Your task to perform on an android device: Show me popular games on the Play Store Image 0: 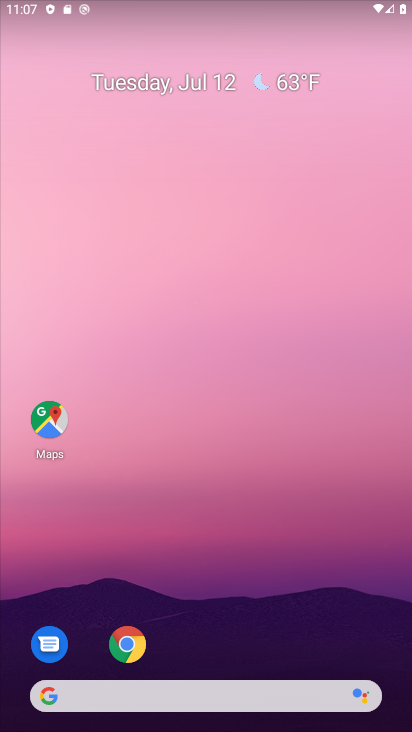
Step 0: drag from (154, 699) to (280, 209)
Your task to perform on an android device: Show me popular games on the Play Store Image 1: 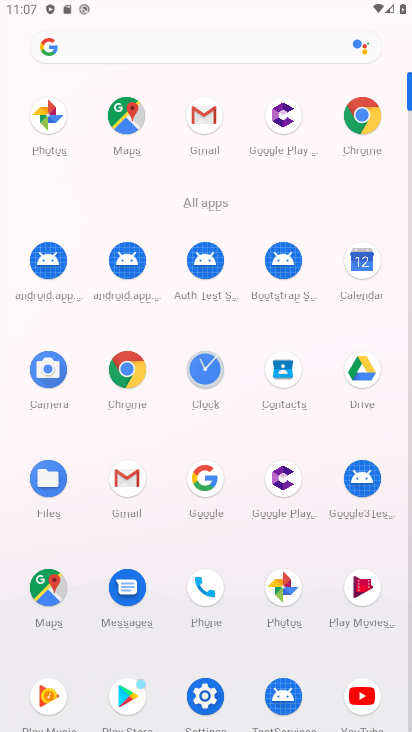
Step 1: drag from (157, 528) to (182, 349)
Your task to perform on an android device: Show me popular games on the Play Store Image 2: 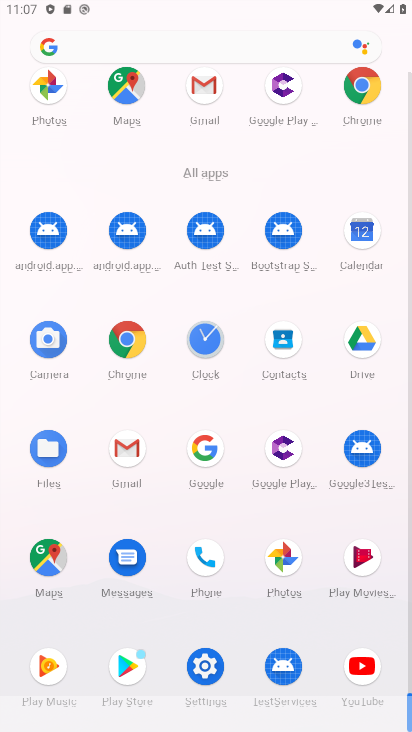
Step 2: click (126, 662)
Your task to perform on an android device: Show me popular games on the Play Store Image 3: 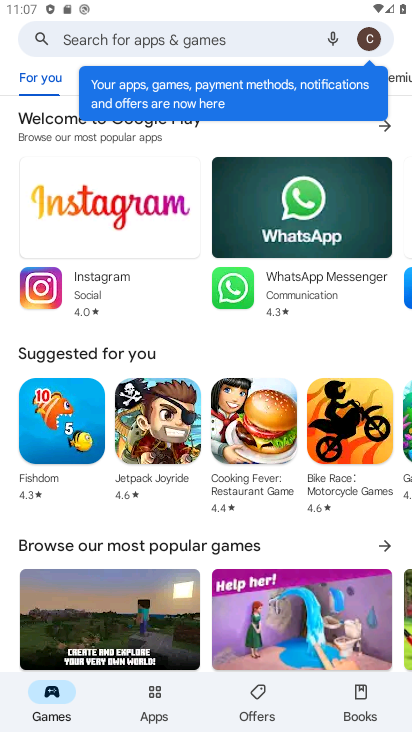
Step 3: click (271, 32)
Your task to perform on an android device: Show me popular games on the Play Store Image 4: 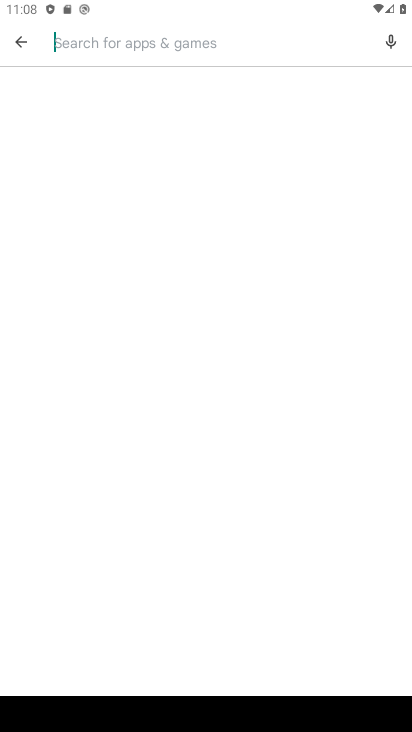
Step 4: type "popular games"
Your task to perform on an android device: Show me popular games on the Play Store Image 5: 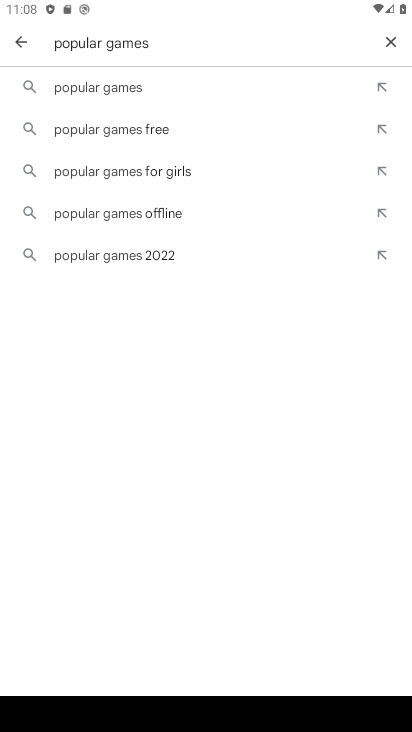
Step 5: click (108, 94)
Your task to perform on an android device: Show me popular games on the Play Store Image 6: 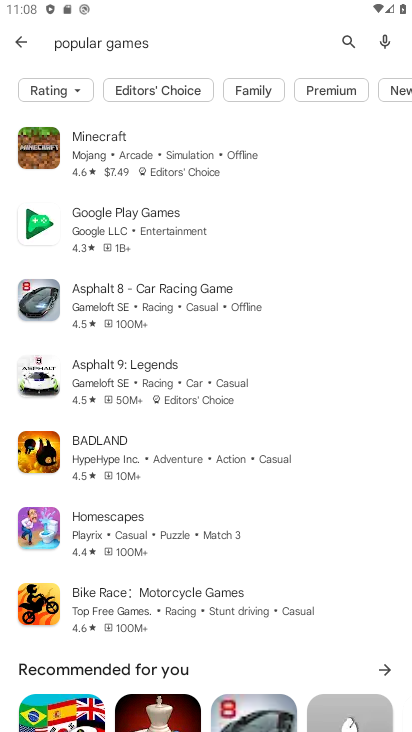
Step 6: task complete